Your task to perform on an android device: turn on priority inbox in the gmail app Image 0: 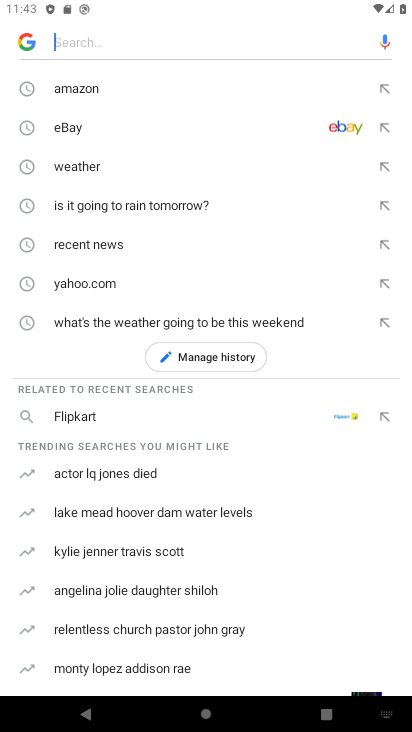
Step 0: press home button
Your task to perform on an android device: turn on priority inbox in the gmail app Image 1: 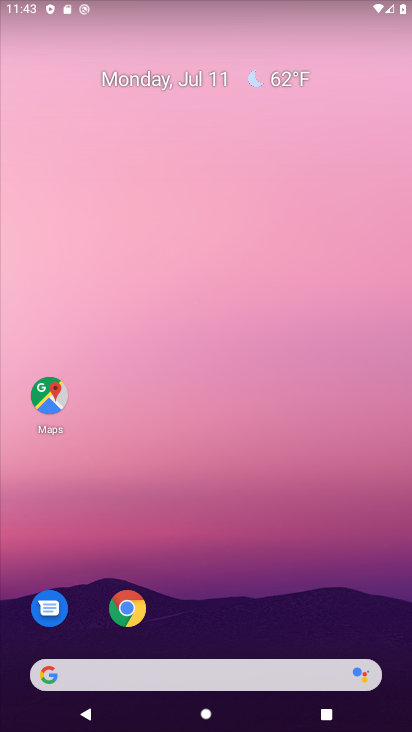
Step 1: drag from (377, 620) to (295, 0)
Your task to perform on an android device: turn on priority inbox in the gmail app Image 2: 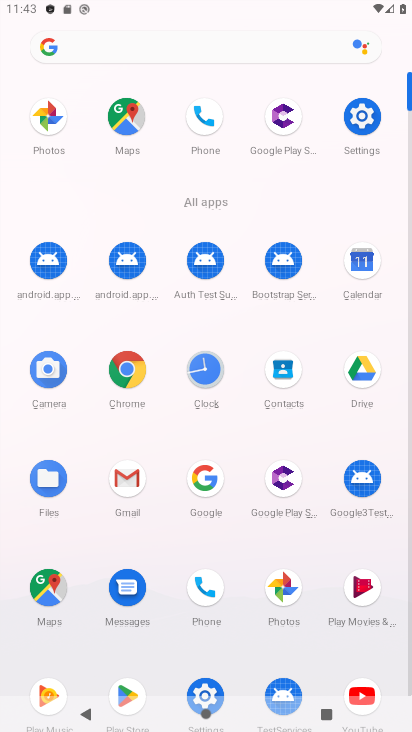
Step 2: click (96, 473)
Your task to perform on an android device: turn on priority inbox in the gmail app Image 3: 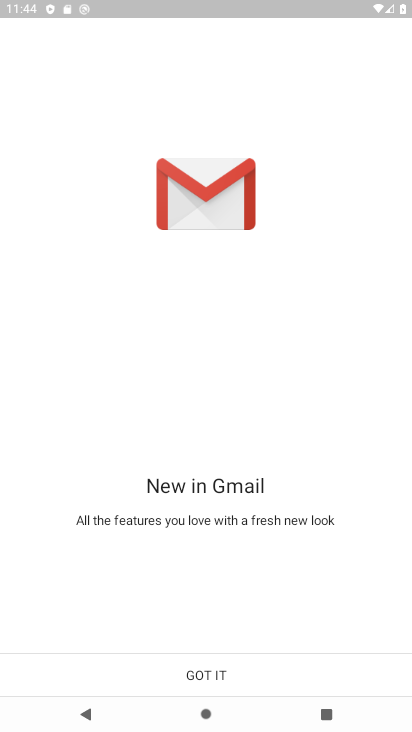
Step 3: click (239, 676)
Your task to perform on an android device: turn on priority inbox in the gmail app Image 4: 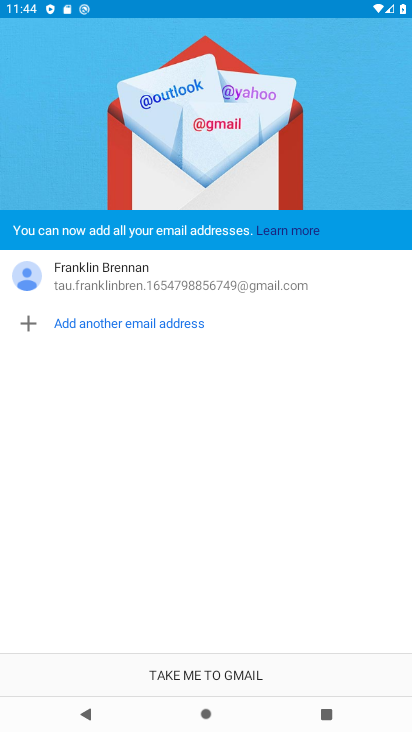
Step 4: click (240, 675)
Your task to perform on an android device: turn on priority inbox in the gmail app Image 5: 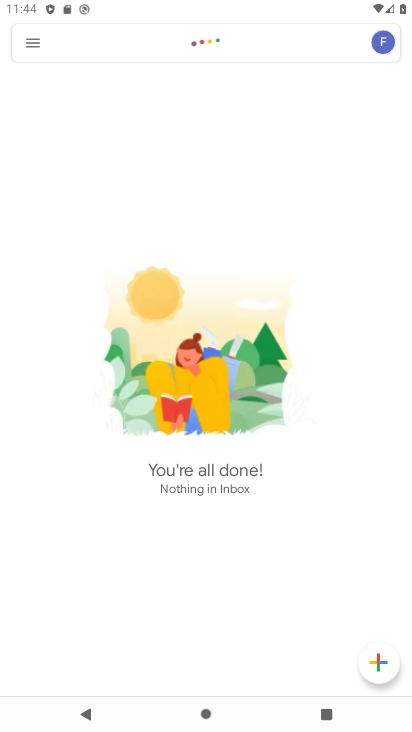
Step 5: click (34, 41)
Your task to perform on an android device: turn on priority inbox in the gmail app Image 6: 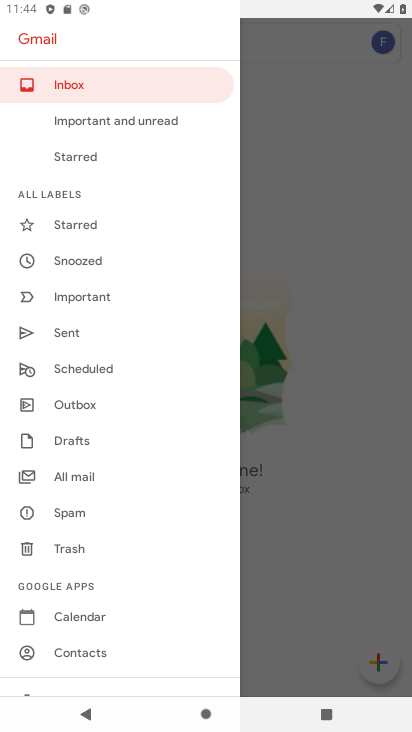
Step 6: drag from (141, 583) to (216, 59)
Your task to perform on an android device: turn on priority inbox in the gmail app Image 7: 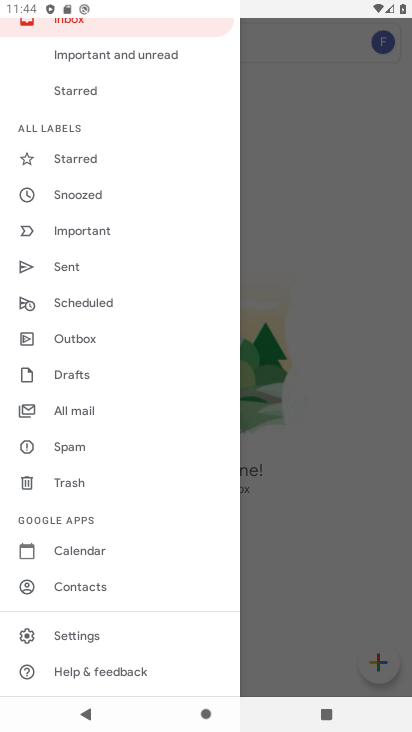
Step 7: click (71, 635)
Your task to perform on an android device: turn on priority inbox in the gmail app Image 8: 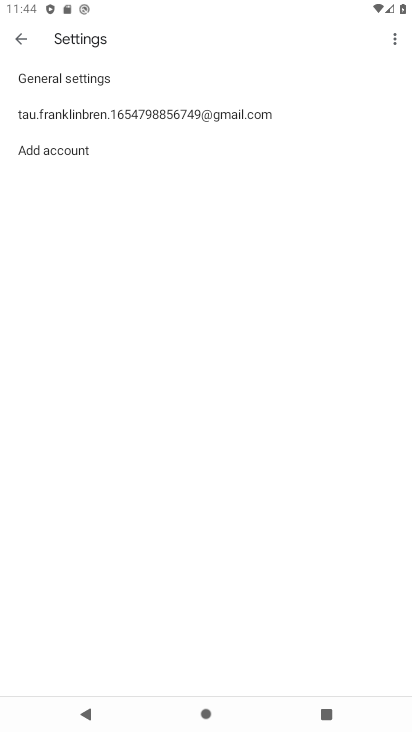
Step 8: click (85, 112)
Your task to perform on an android device: turn on priority inbox in the gmail app Image 9: 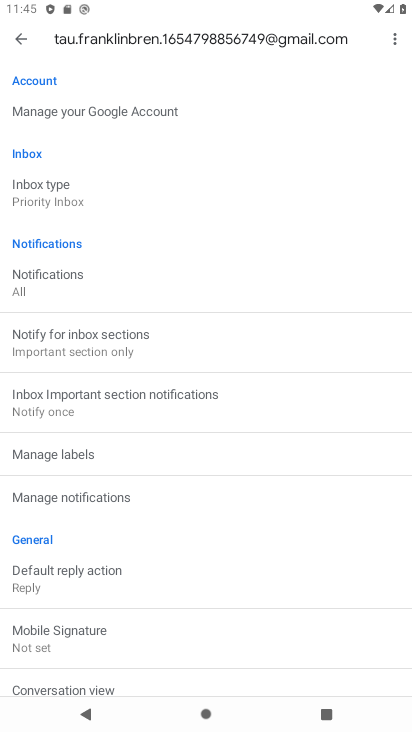
Step 9: click (52, 195)
Your task to perform on an android device: turn on priority inbox in the gmail app Image 10: 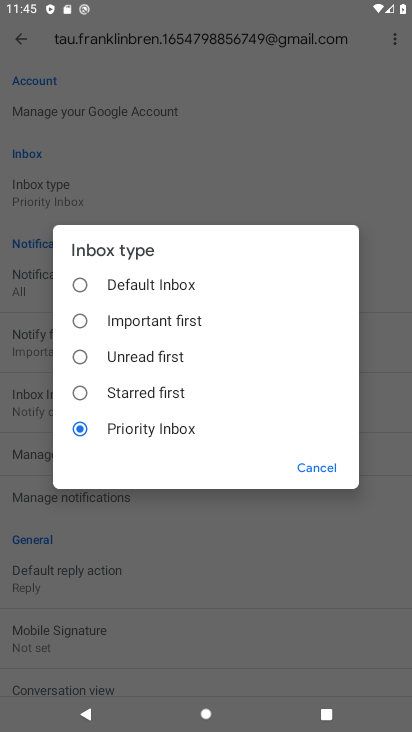
Step 10: task complete